Your task to perform on an android device: Open Chrome and go to settings Image 0: 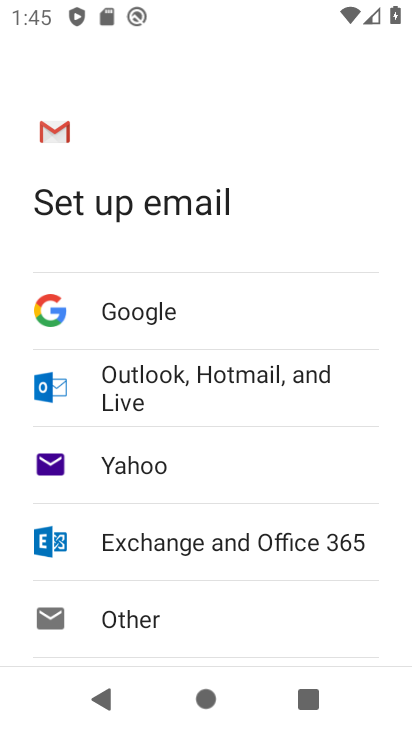
Step 0: press home button
Your task to perform on an android device: Open Chrome and go to settings Image 1: 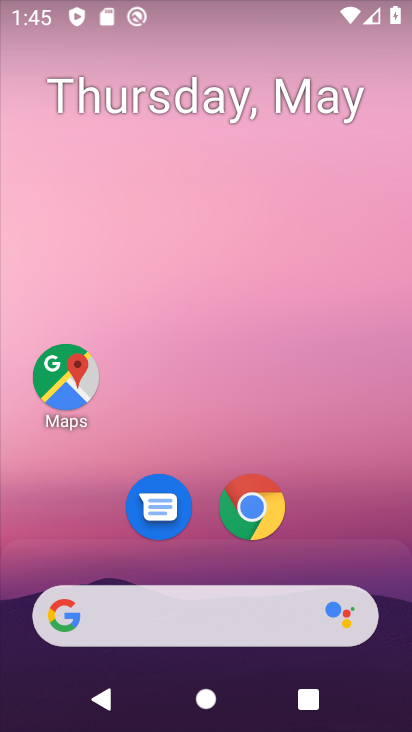
Step 1: click (264, 520)
Your task to perform on an android device: Open Chrome and go to settings Image 2: 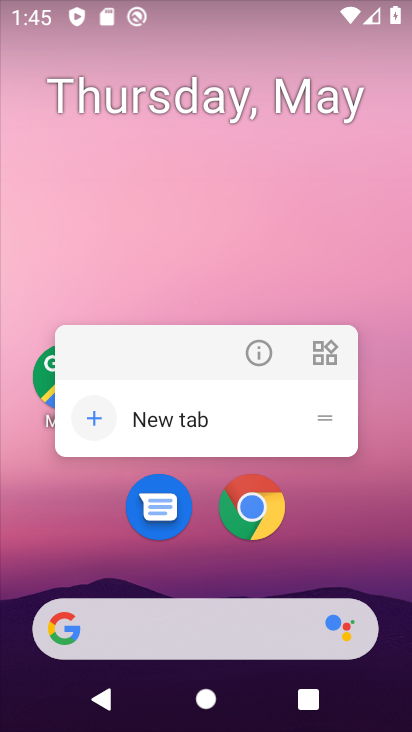
Step 2: click (246, 500)
Your task to perform on an android device: Open Chrome and go to settings Image 3: 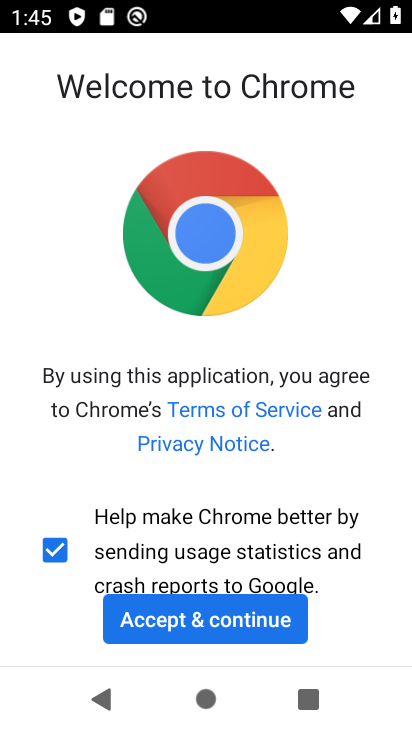
Step 3: click (225, 626)
Your task to perform on an android device: Open Chrome and go to settings Image 4: 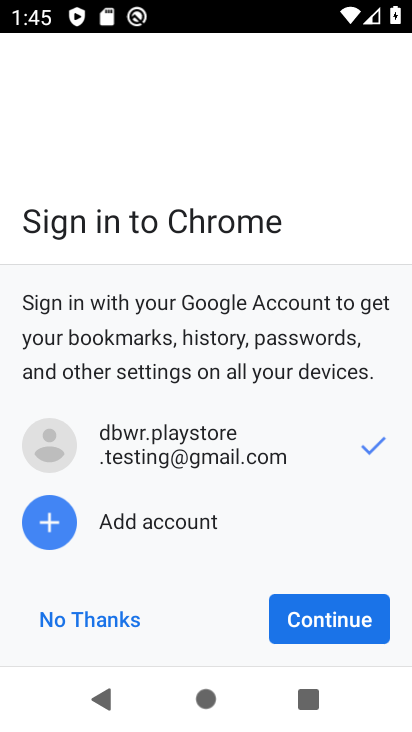
Step 4: click (338, 612)
Your task to perform on an android device: Open Chrome and go to settings Image 5: 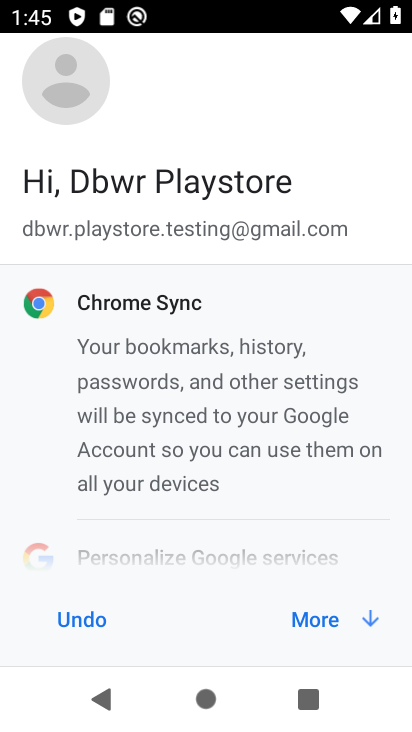
Step 5: click (378, 616)
Your task to perform on an android device: Open Chrome and go to settings Image 6: 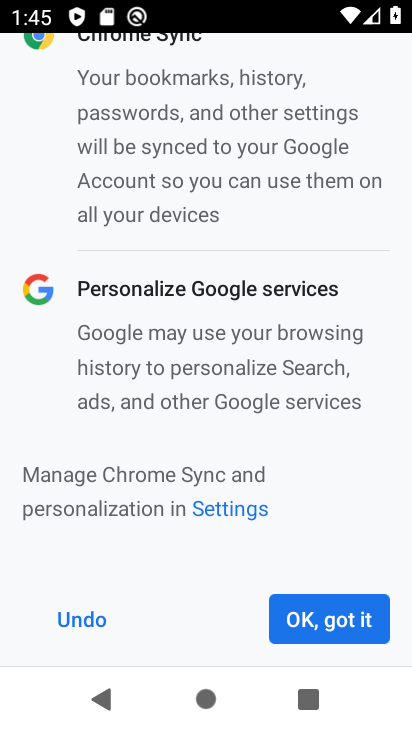
Step 6: click (322, 623)
Your task to perform on an android device: Open Chrome and go to settings Image 7: 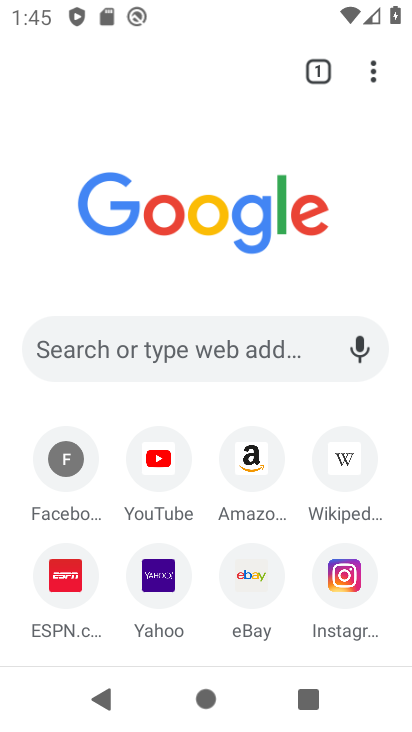
Step 7: click (376, 70)
Your task to perform on an android device: Open Chrome and go to settings Image 8: 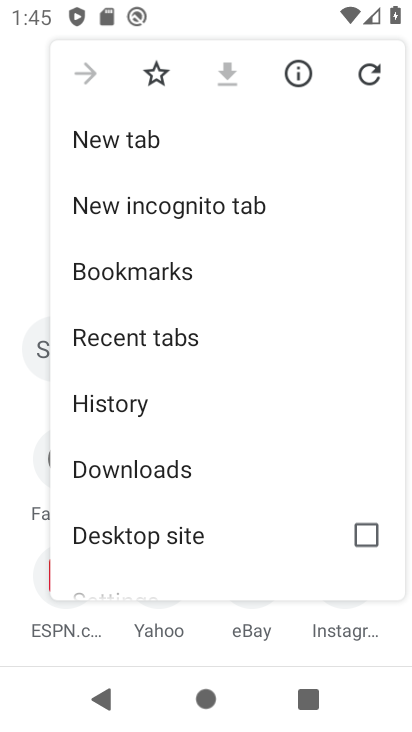
Step 8: drag from (265, 552) to (250, 155)
Your task to perform on an android device: Open Chrome and go to settings Image 9: 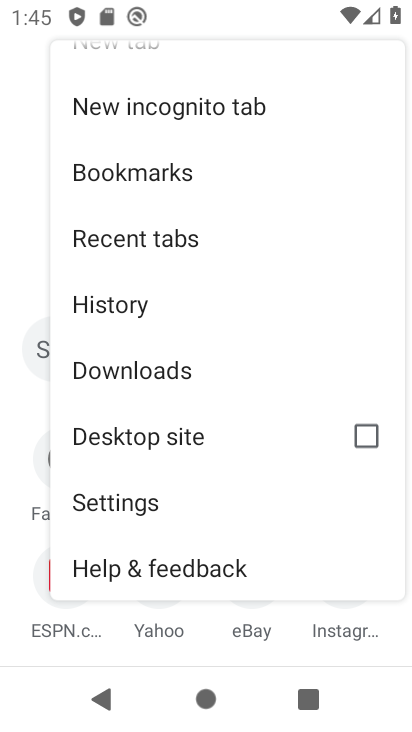
Step 9: click (121, 505)
Your task to perform on an android device: Open Chrome and go to settings Image 10: 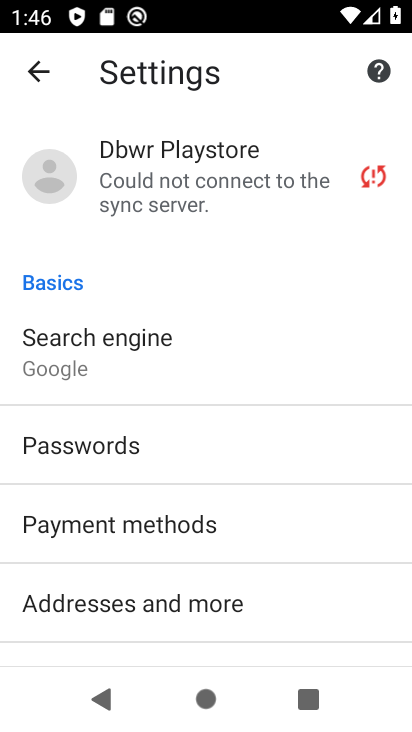
Step 10: task complete